Your task to perform on an android device: install app "Firefox Browser" Image 0: 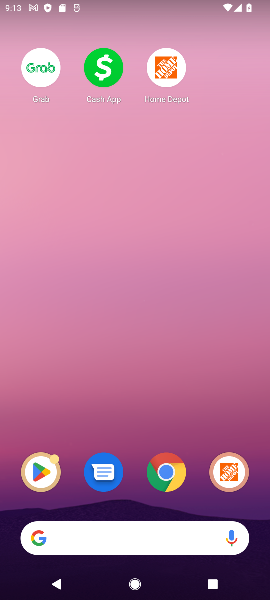
Step 0: drag from (174, 564) to (117, 39)
Your task to perform on an android device: install app "Firefox Browser" Image 1: 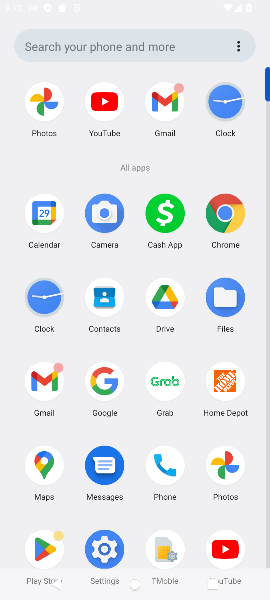
Step 1: drag from (155, 492) to (93, 46)
Your task to perform on an android device: install app "Firefox Browser" Image 2: 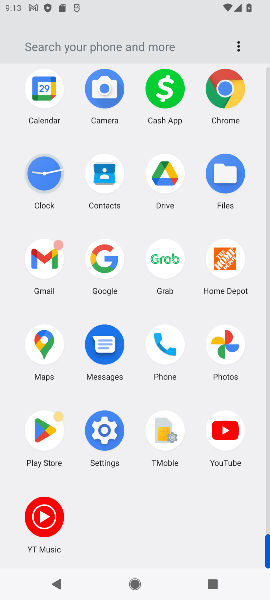
Step 2: drag from (159, 470) to (114, 100)
Your task to perform on an android device: install app "Firefox Browser" Image 3: 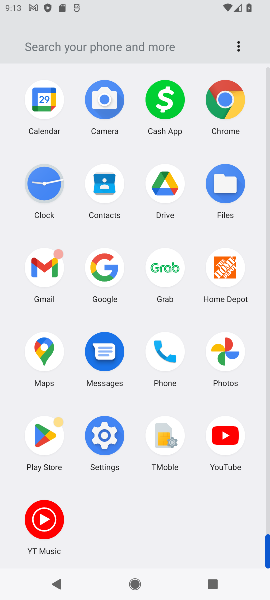
Step 3: click (76, 434)
Your task to perform on an android device: install app "Firefox Browser" Image 4: 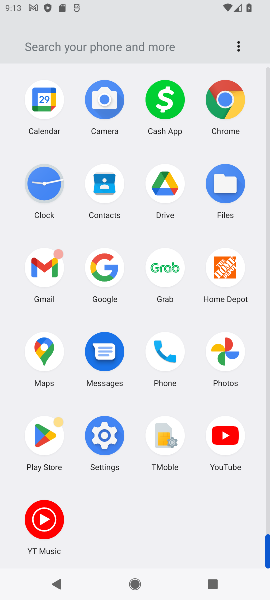
Step 4: click (43, 427)
Your task to perform on an android device: install app "Firefox Browser" Image 5: 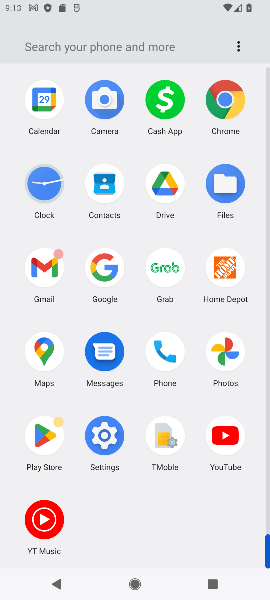
Step 5: click (34, 437)
Your task to perform on an android device: install app "Firefox Browser" Image 6: 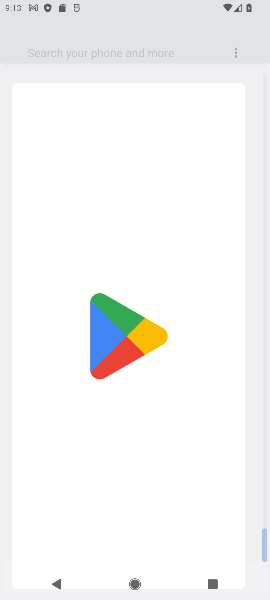
Step 6: click (42, 432)
Your task to perform on an android device: install app "Firefox Browser" Image 7: 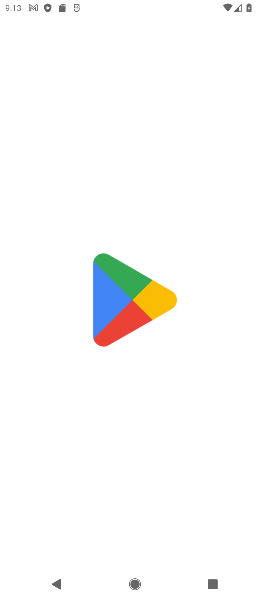
Step 7: click (43, 432)
Your task to perform on an android device: install app "Firefox Browser" Image 8: 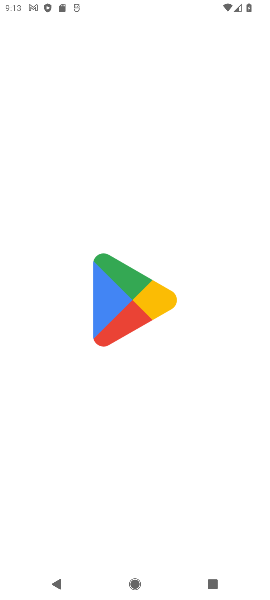
Step 8: click (47, 437)
Your task to perform on an android device: install app "Firefox Browser" Image 9: 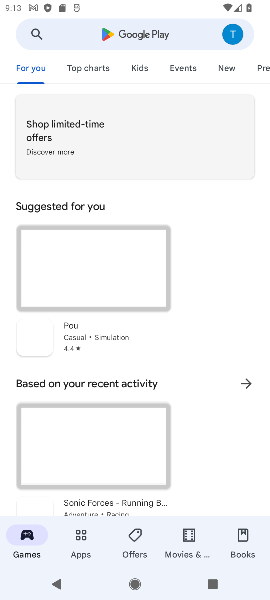
Step 9: click (108, 26)
Your task to perform on an android device: install app "Firefox Browser" Image 10: 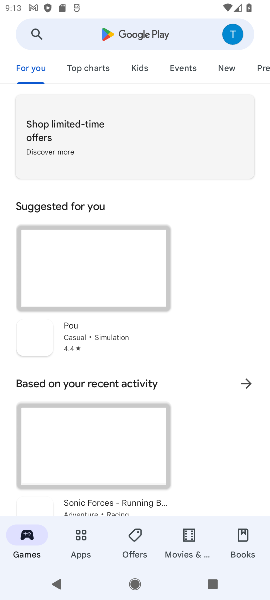
Step 10: click (109, 31)
Your task to perform on an android device: install app "Firefox Browser" Image 11: 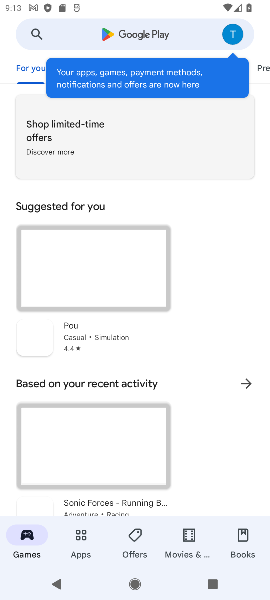
Step 11: click (109, 31)
Your task to perform on an android device: install app "Firefox Browser" Image 12: 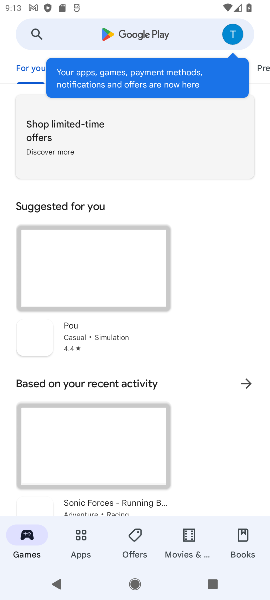
Step 12: click (109, 35)
Your task to perform on an android device: install app "Firefox Browser" Image 13: 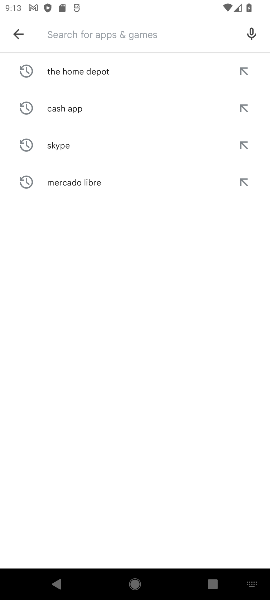
Step 13: click (106, 32)
Your task to perform on an android device: install app "Firefox Browser" Image 14: 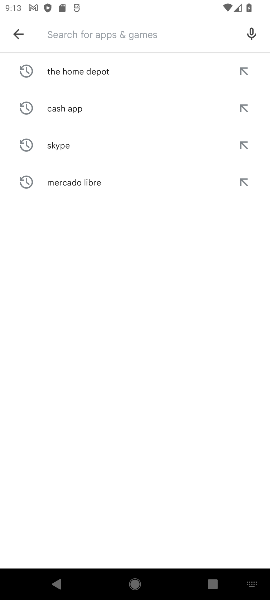
Step 14: type "firefox browser"
Your task to perform on an android device: install app "Firefox Browser" Image 15: 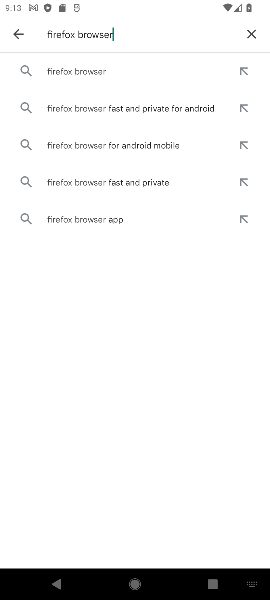
Step 15: click (89, 74)
Your task to perform on an android device: install app "Firefox Browser" Image 16: 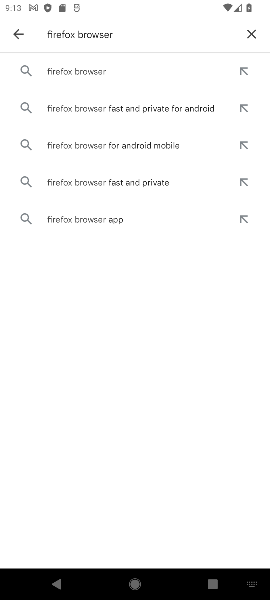
Step 16: click (88, 73)
Your task to perform on an android device: install app "Firefox Browser" Image 17: 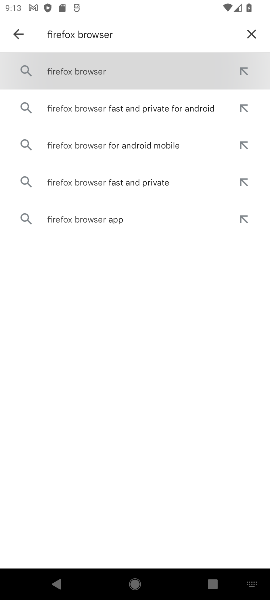
Step 17: click (88, 72)
Your task to perform on an android device: install app "Firefox Browser" Image 18: 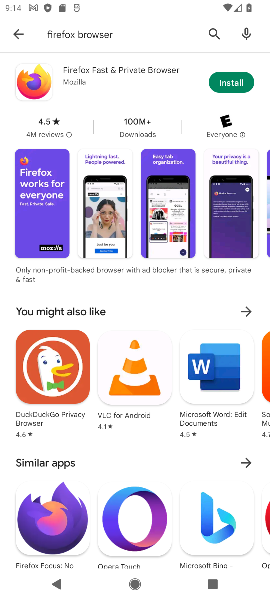
Step 18: click (221, 79)
Your task to perform on an android device: install app "Firefox Browser" Image 19: 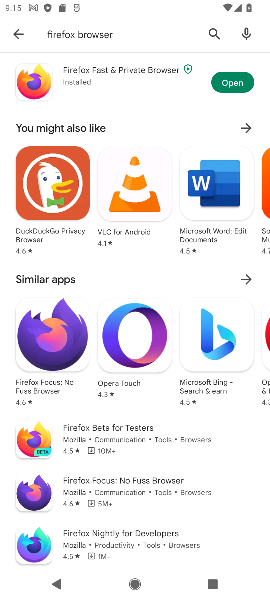
Step 19: click (220, 77)
Your task to perform on an android device: install app "Firefox Browser" Image 20: 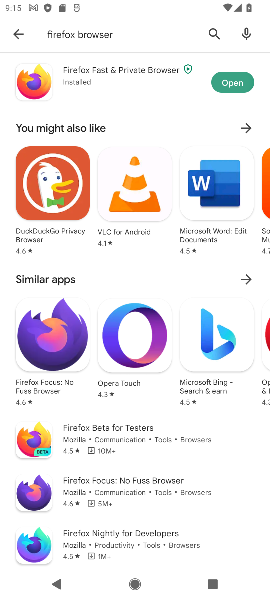
Step 20: click (222, 78)
Your task to perform on an android device: install app "Firefox Browser" Image 21: 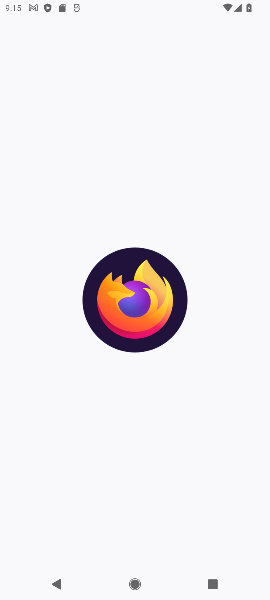
Step 21: click (222, 78)
Your task to perform on an android device: install app "Firefox Browser" Image 22: 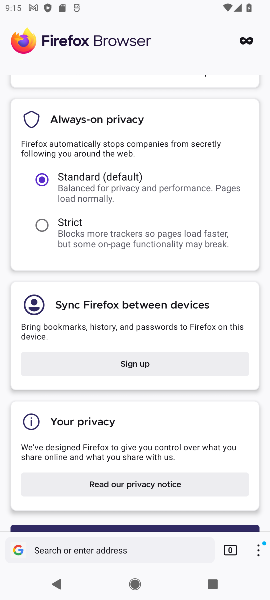
Step 22: task complete